Your task to perform on an android device: turn on airplane mode Image 0: 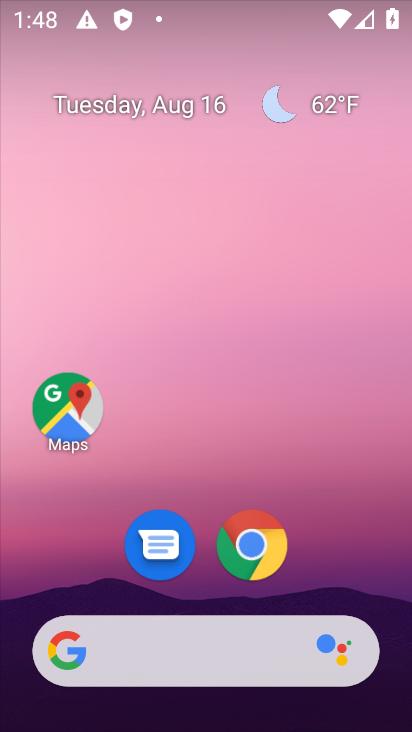
Step 0: click (277, 69)
Your task to perform on an android device: turn on airplane mode Image 1: 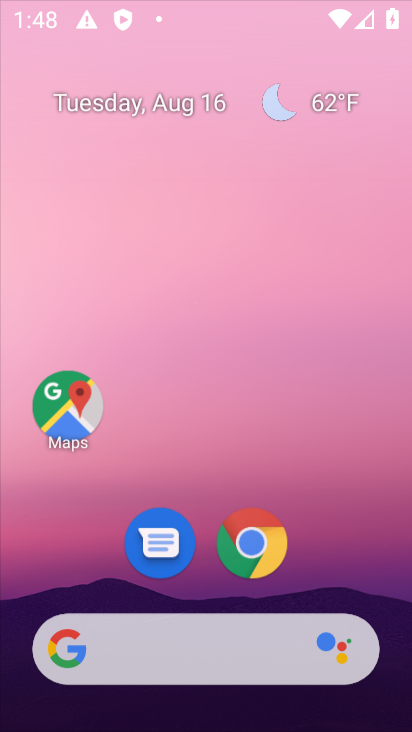
Step 1: click (291, 200)
Your task to perform on an android device: turn on airplane mode Image 2: 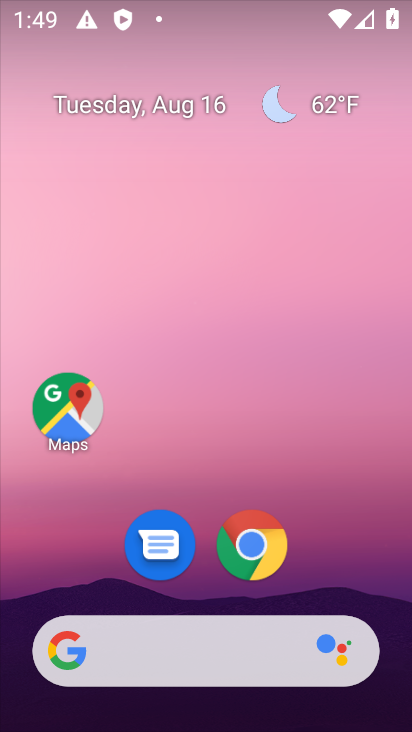
Step 2: drag from (182, 597) to (215, 296)
Your task to perform on an android device: turn on airplane mode Image 3: 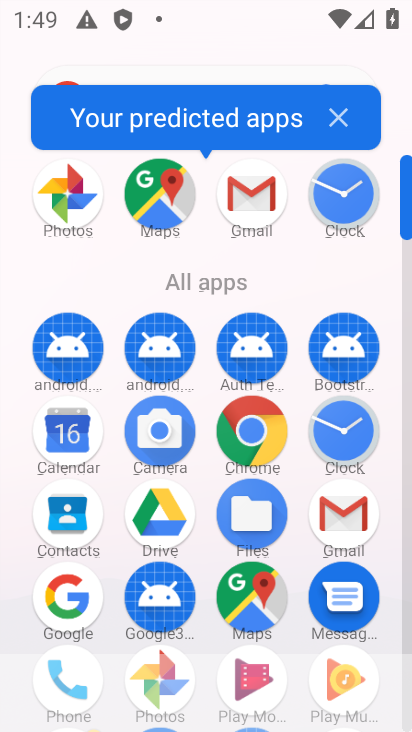
Step 3: drag from (209, 611) to (228, 398)
Your task to perform on an android device: turn on airplane mode Image 4: 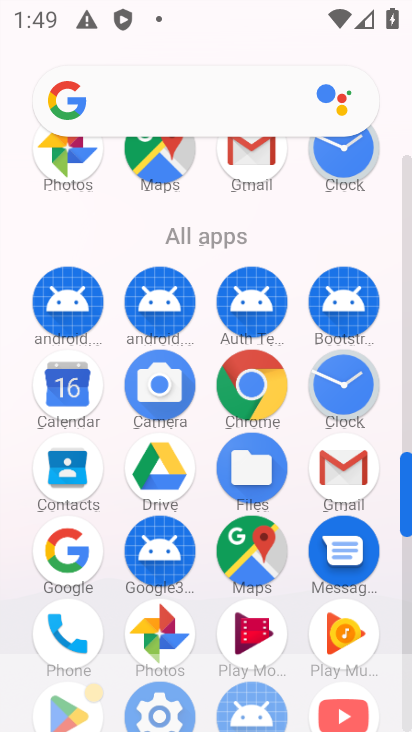
Step 4: click (172, 696)
Your task to perform on an android device: turn on airplane mode Image 5: 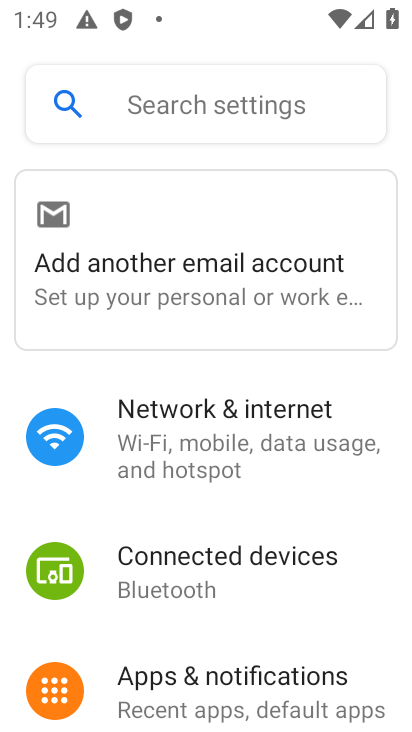
Step 5: click (188, 488)
Your task to perform on an android device: turn on airplane mode Image 6: 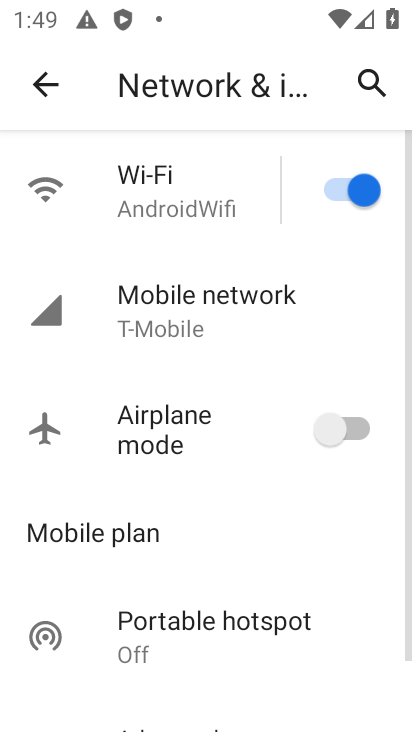
Step 6: click (354, 434)
Your task to perform on an android device: turn on airplane mode Image 7: 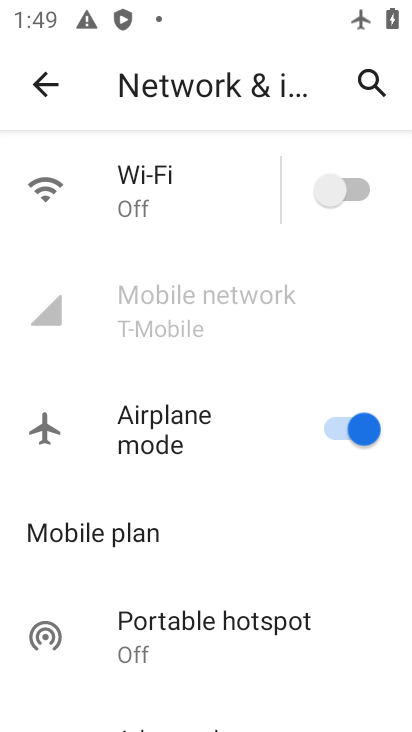
Step 7: task complete